Your task to perform on an android device: toggle priority inbox in the gmail app Image 0: 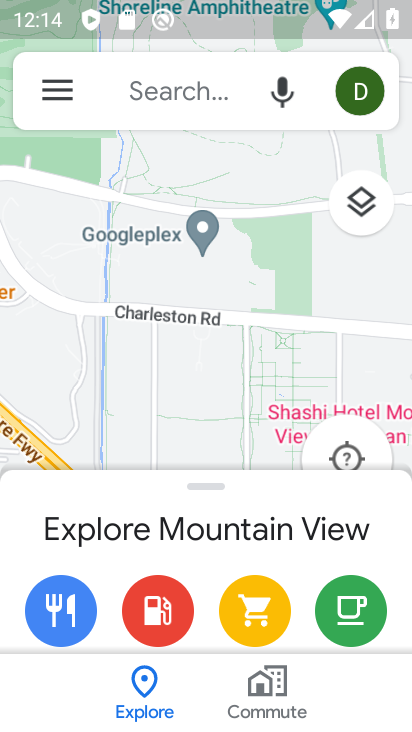
Step 0: press home button
Your task to perform on an android device: toggle priority inbox in the gmail app Image 1: 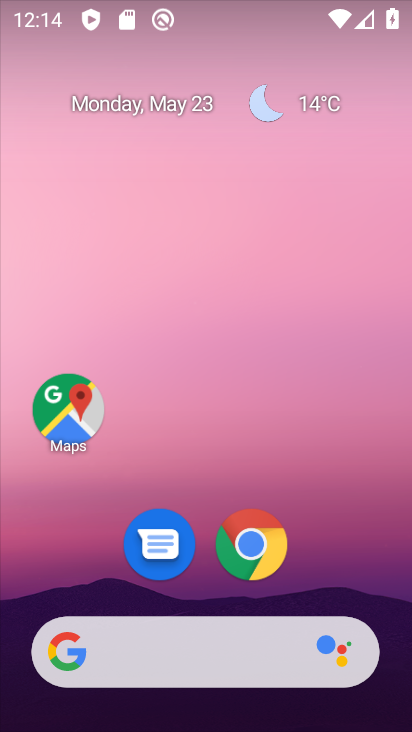
Step 1: drag from (322, 553) to (245, 131)
Your task to perform on an android device: toggle priority inbox in the gmail app Image 2: 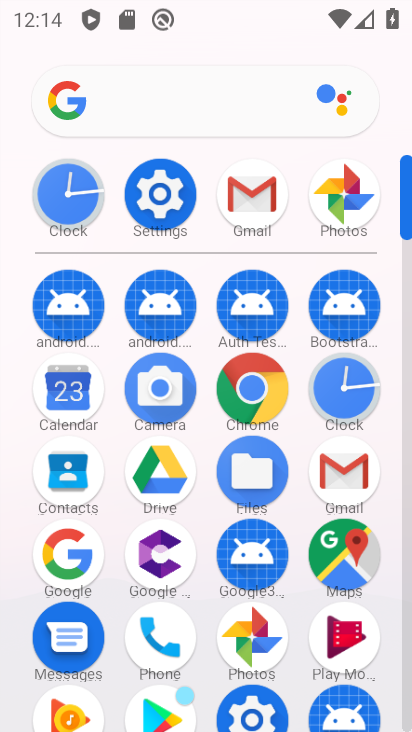
Step 2: click (247, 186)
Your task to perform on an android device: toggle priority inbox in the gmail app Image 3: 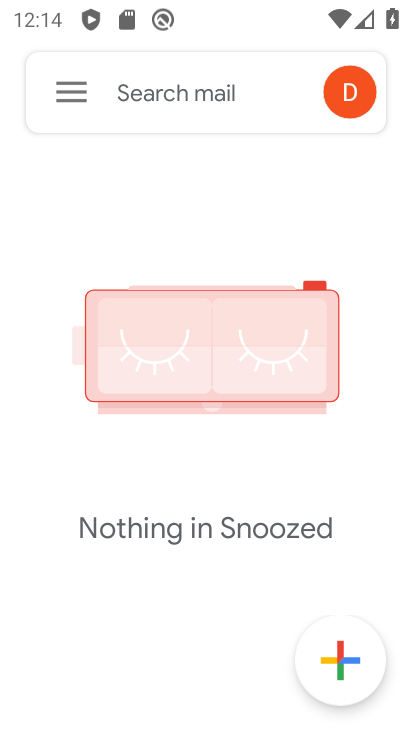
Step 3: click (63, 95)
Your task to perform on an android device: toggle priority inbox in the gmail app Image 4: 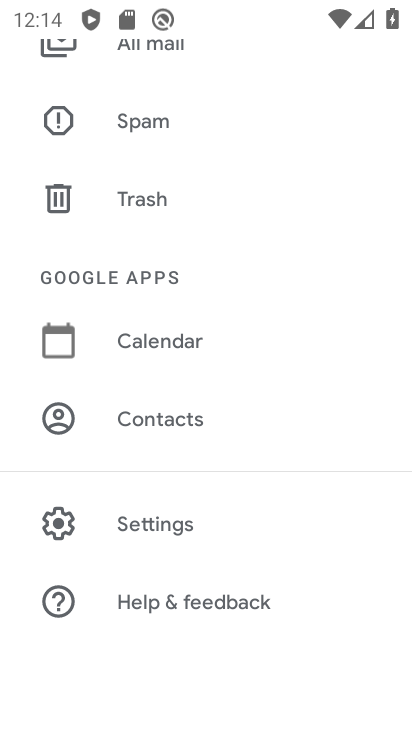
Step 4: click (125, 502)
Your task to perform on an android device: toggle priority inbox in the gmail app Image 5: 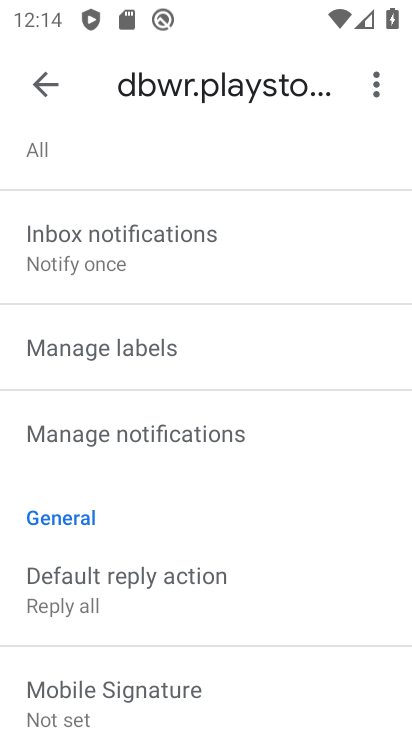
Step 5: drag from (134, 219) to (216, 731)
Your task to perform on an android device: toggle priority inbox in the gmail app Image 6: 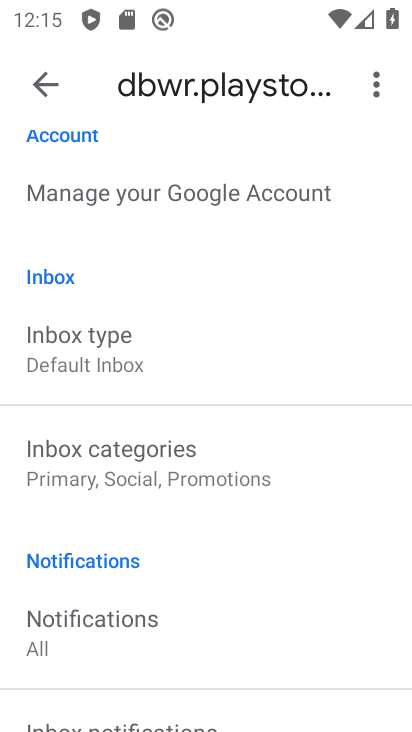
Step 6: click (82, 336)
Your task to perform on an android device: toggle priority inbox in the gmail app Image 7: 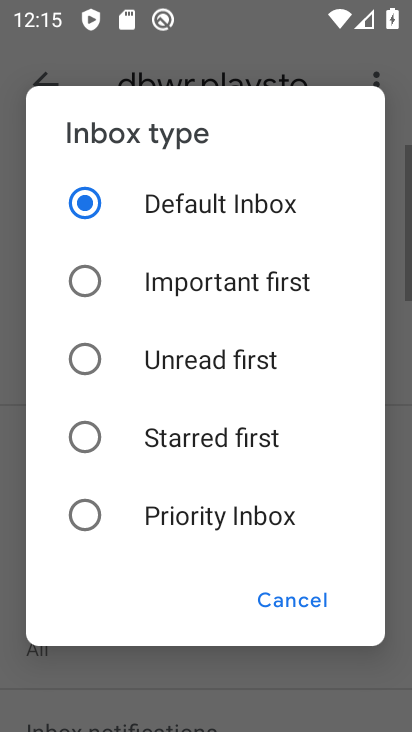
Step 7: click (208, 516)
Your task to perform on an android device: toggle priority inbox in the gmail app Image 8: 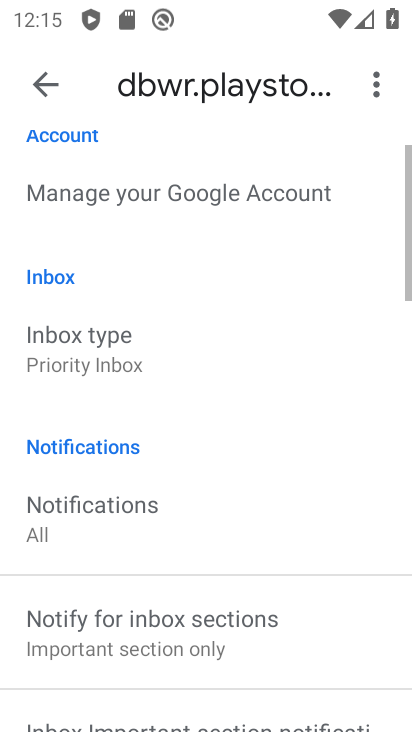
Step 8: task complete